Your task to perform on an android device: turn off javascript in the chrome app Image 0: 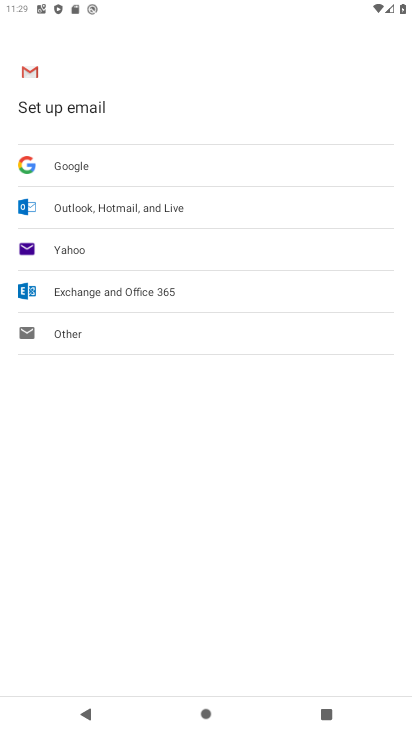
Step 0: press home button
Your task to perform on an android device: turn off javascript in the chrome app Image 1: 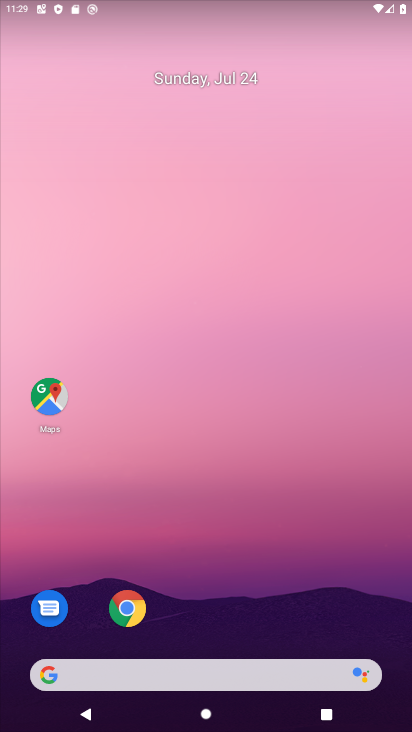
Step 1: click (130, 611)
Your task to perform on an android device: turn off javascript in the chrome app Image 2: 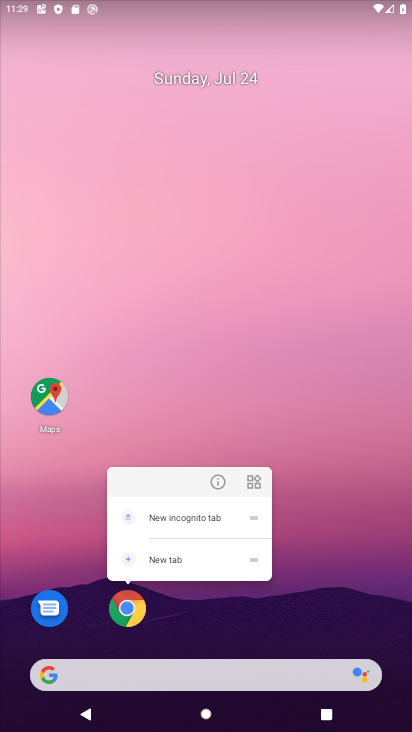
Step 2: click (130, 611)
Your task to perform on an android device: turn off javascript in the chrome app Image 3: 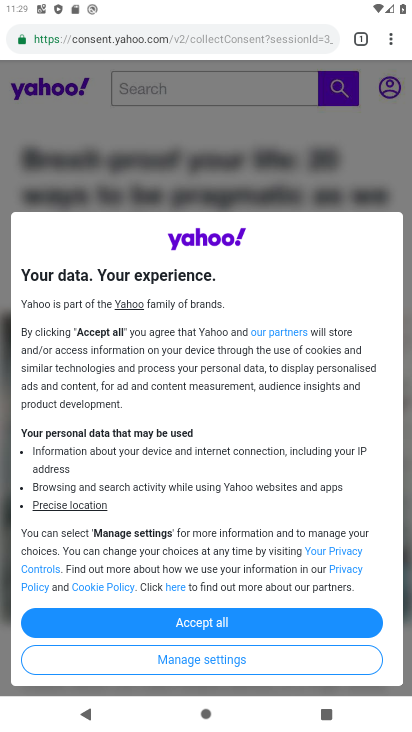
Step 3: drag from (388, 33) to (229, 463)
Your task to perform on an android device: turn off javascript in the chrome app Image 4: 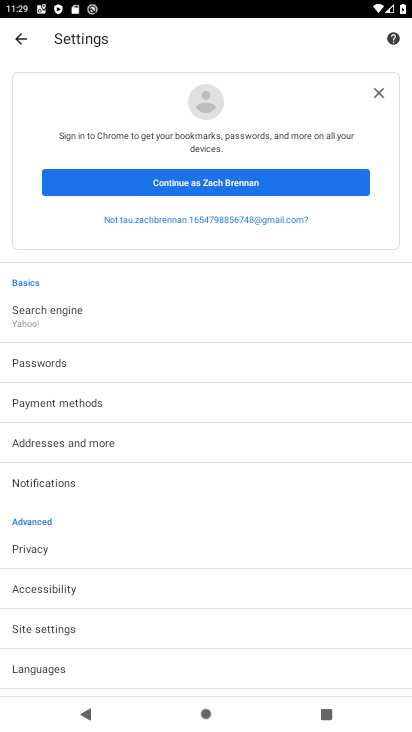
Step 4: click (53, 624)
Your task to perform on an android device: turn off javascript in the chrome app Image 5: 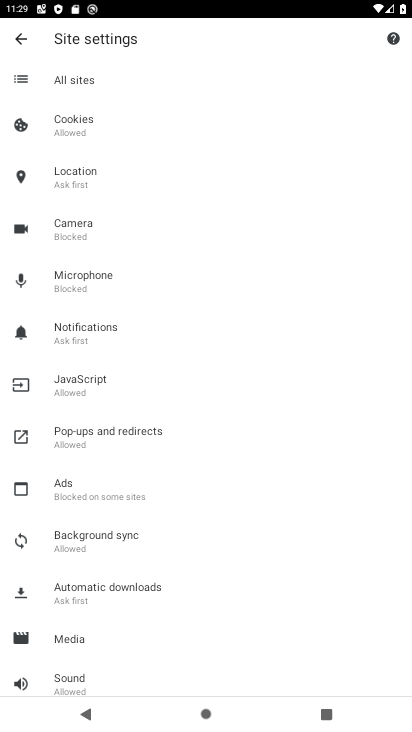
Step 5: click (56, 392)
Your task to perform on an android device: turn off javascript in the chrome app Image 6: 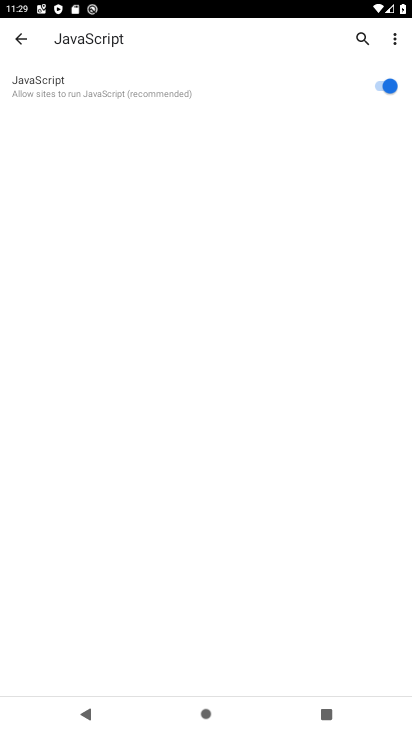
Step 6: click (393, 89)
Your task to perform on an android device: turn off javascript in the chrome app Image 7: 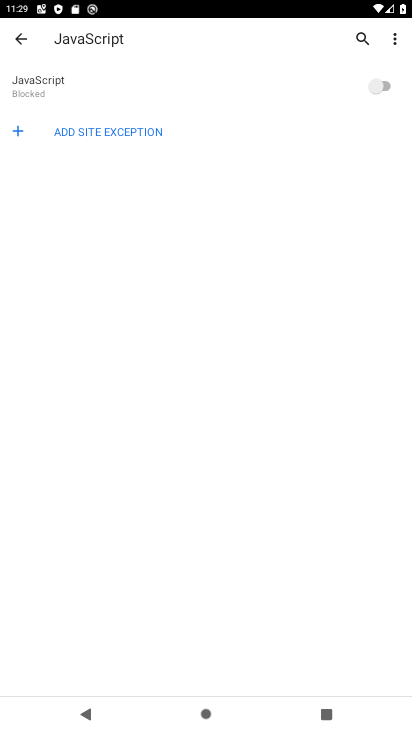
Step 7: task complete